Your task to perform on an android device: Open Reddit.com Image 0: 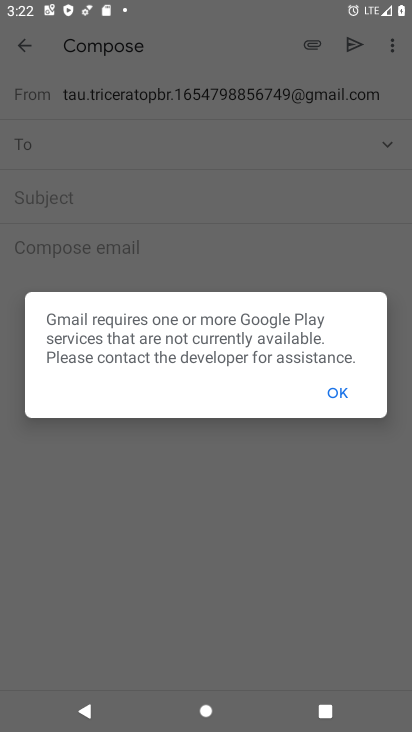
Step 0: press back button
Your task to perform on an android device: Open Reddit.com Image 1: 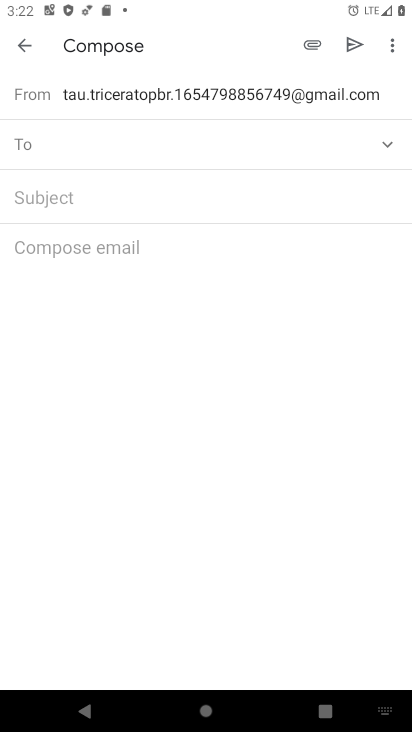
Step 1: press home button
Your task to perform on an android device: Open Reddit.com Image 2: 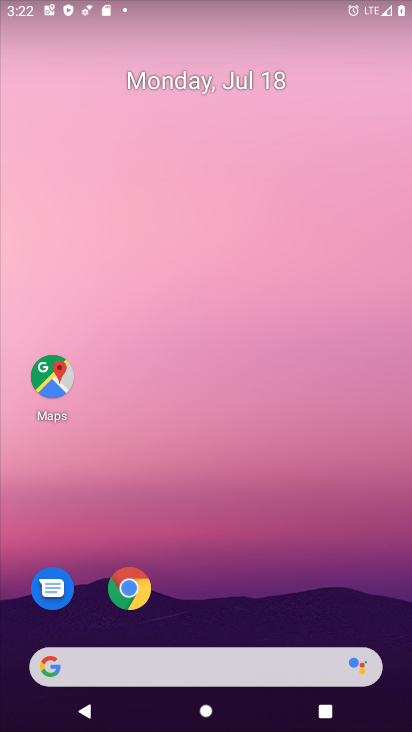
Step 2: click (117, 578)
Your task to perform on an android device: Open Reddit.com Image 3: 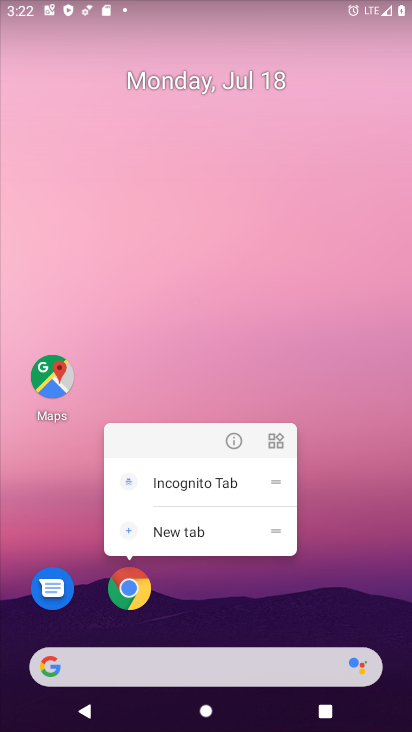
Step 3: click (137, 580)
Your task to perform on an android device: Open Reddit.com Image 4: 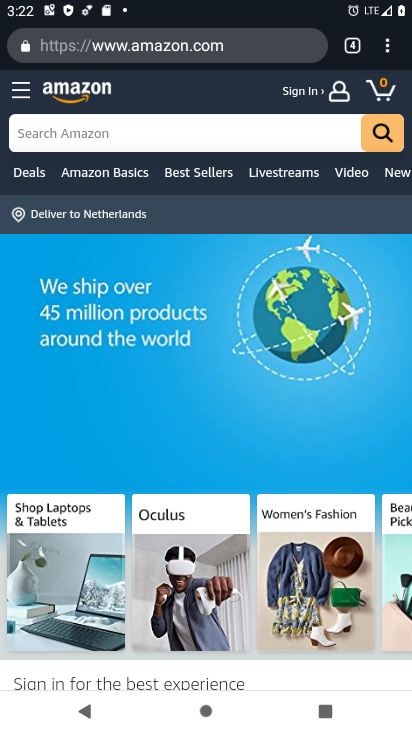
Step 4: click (357, 40)
Your task to perform on an android device: Open Reddit.com Image 5: 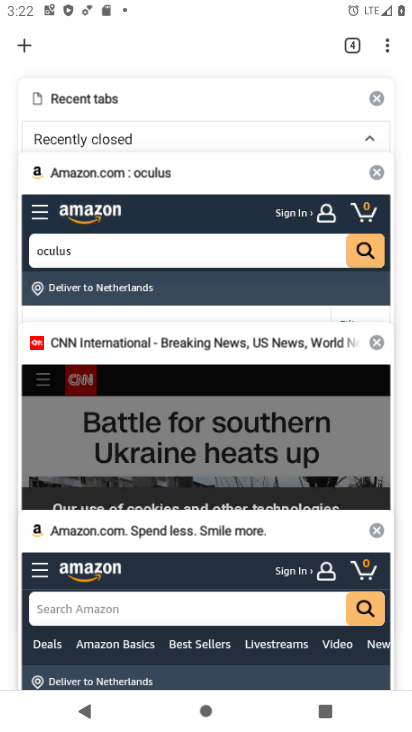
Step 5: click (24, 41)
Your task to perform on an android device: Open Reddit.com Image 6: 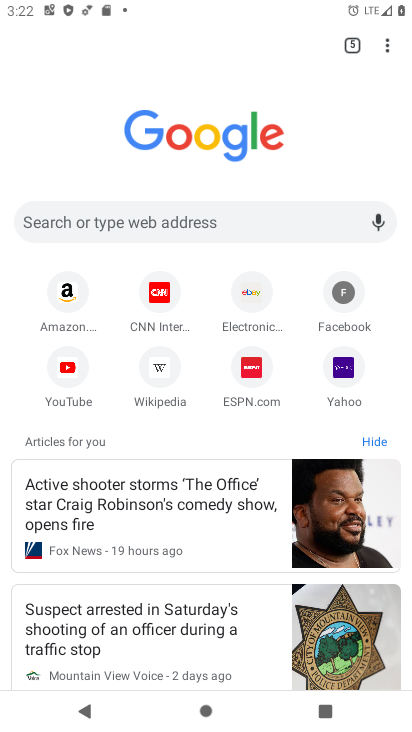
Step 6: click (137, 211)
Your task to perform on an android device: Open Reddit.com Image 7: 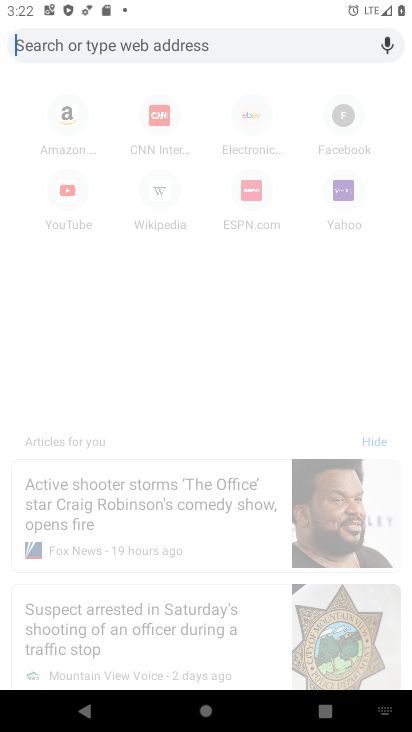
Step 7: type "reddit.com"
Your task to perform on an android device: Open Reddit.com Image 8: 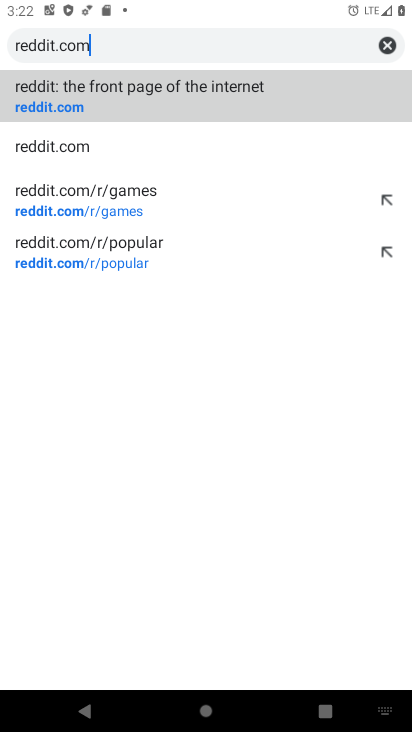
Step 8: click (74, 102)
Your task to perform on an android device: Open Reddit.com Image 9: 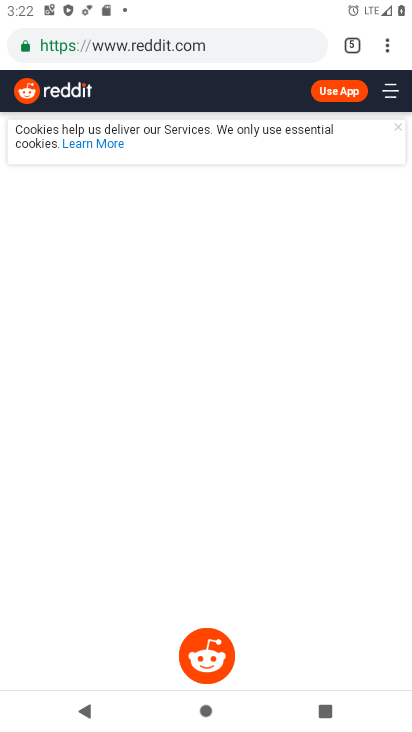
Step 9: task complete